Your task to perform on an android device: Open calendar and show me the first week of next month Image 0: 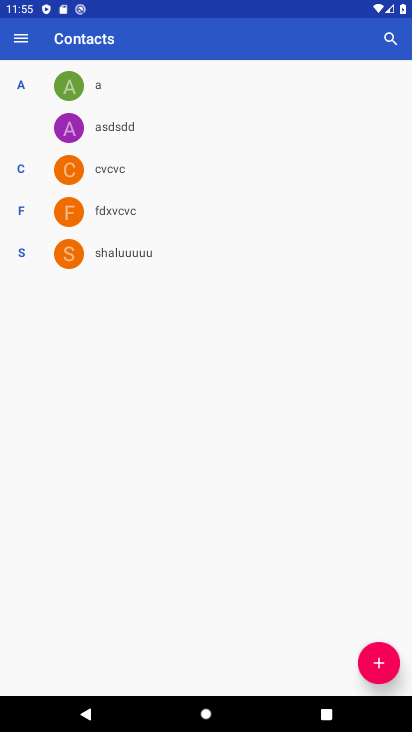
Step 0: press home button
Your task to perform on an android device: Open calendar and show me the first week of next month Image 1: 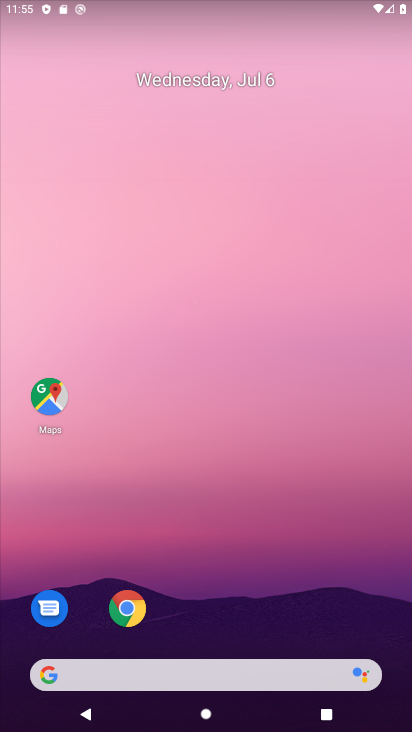
Step 1: drag from (261, 564) to (284, 97)
Your task to perform on an android device: Open calendar and show me the first week of next month Image 2: 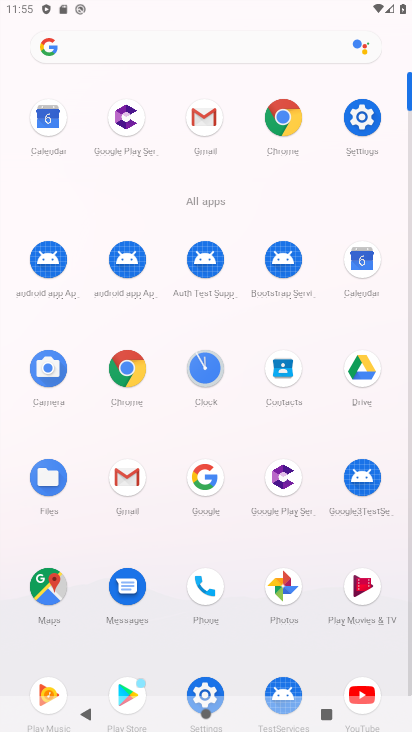
Step 2: click (364, 264)
Your task to perform on an android device: Open calendar and show me the first week of next month Image 3: 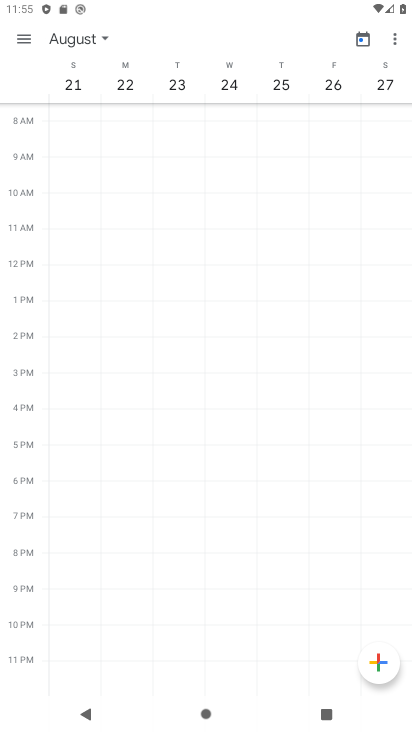
Step 3: click (98, 35)
Your task to perform on an android device: Open calendar and show me the first week of next month Image 4: 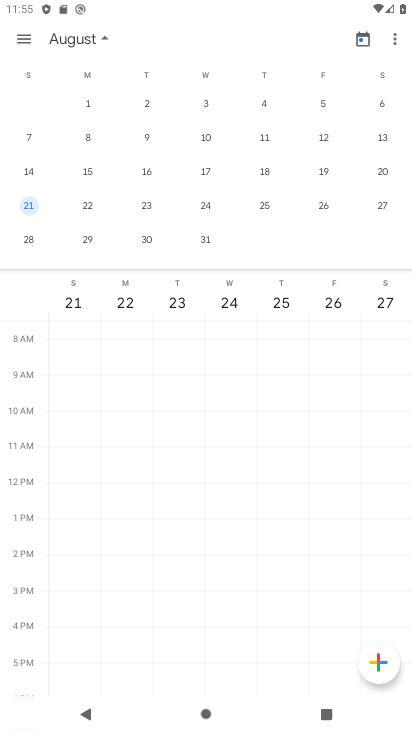
Step 4: click (269, 100)
Your task to perform on an android device: Open calendar and show me the first week of next month Image 5: 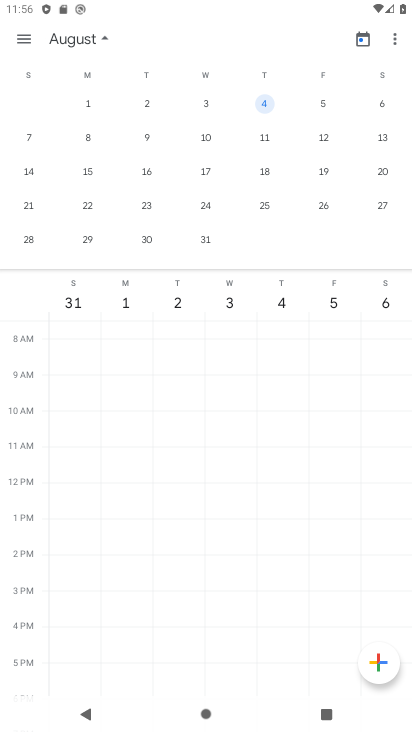
Step 5: task complete